Your task to perform on an android device: toggle sleep mode Image 0: 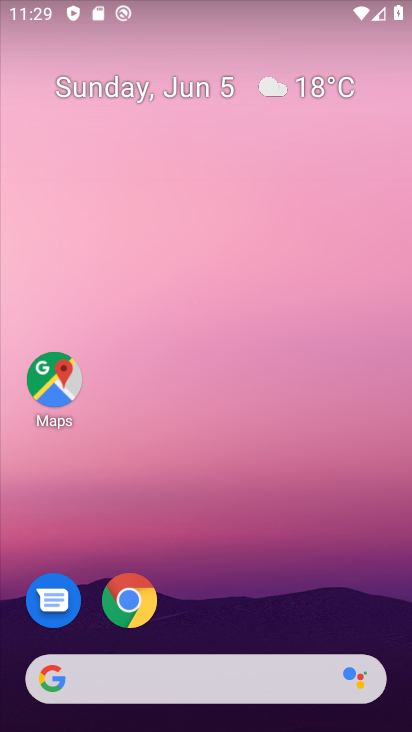
Step 0: drag from (231, 24) to (241, 675)
Your task to perform on an android device: toggle sleep mode Image 1: 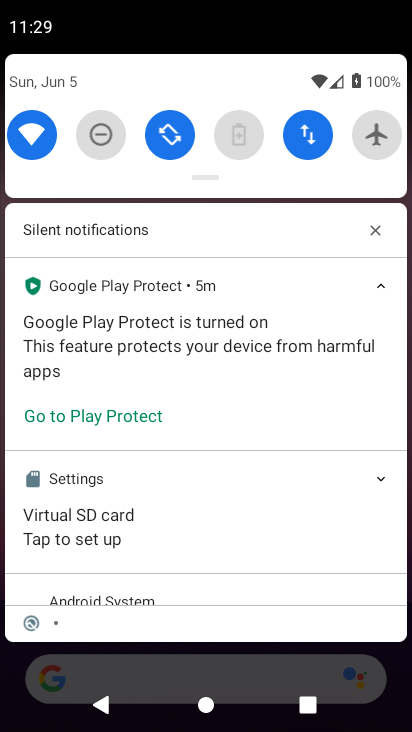
Step 1: drag from (224, 170) to (309, 663)
Your task to perform on an android device: toggle sleep mode Image 2: 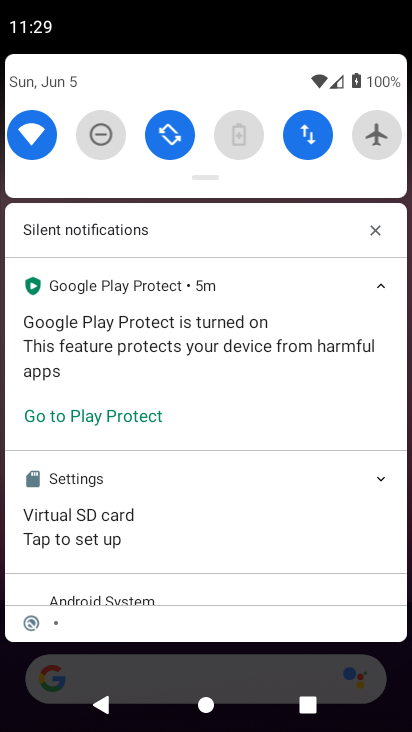
Step 2: drag from (193, 182) to (218, 582)
Your task to perform on an android device: toggle sleep mode Image 3: 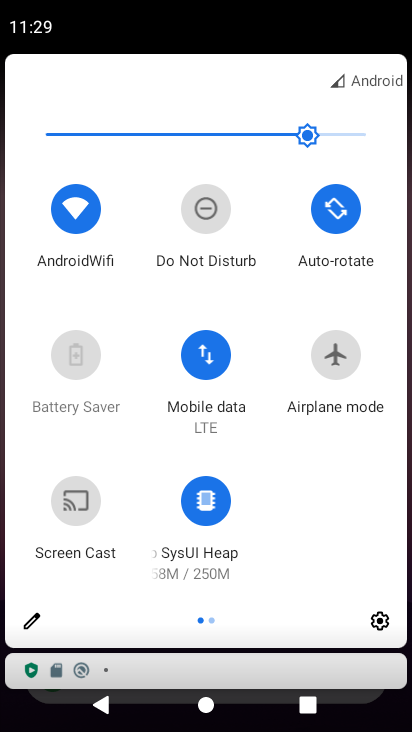
Step 3: click (26, 623)
Your task to perform on an android device: toggle sleep mode Image 4: 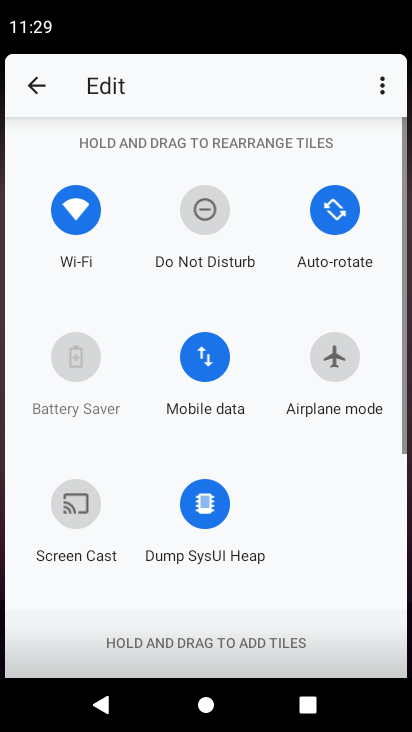
Step 4: task complete